Your task to perform on an android device: Show me the alarms in the clock app Image 0: 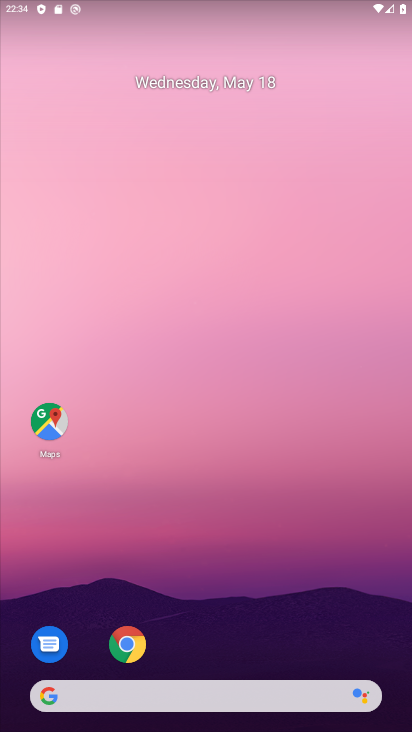
Step 0: drag from (274, 623) to (225, 139)
Your task to perform on an android device: Show me the alarms in the clock app Image 1: 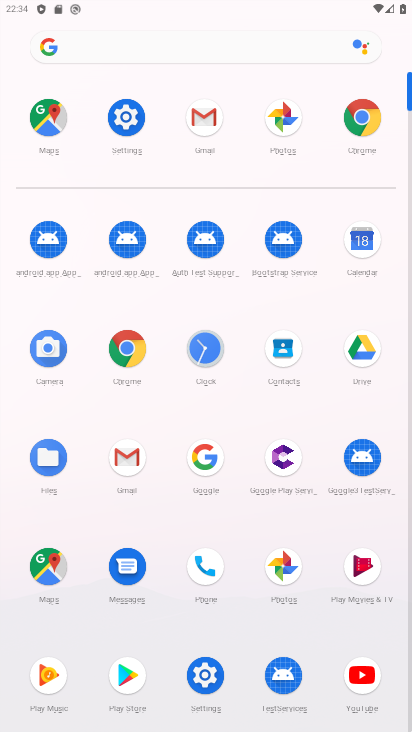
Step 1: click (207, 352)
Your task to perform on an android device: Show me the alarms in the clock app Image 2: 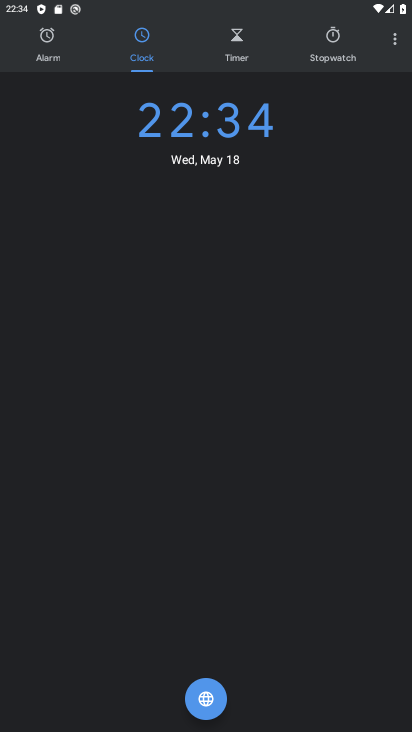
Step 2: click (43, 47)
Your task to perform on an android device: Show me the alarms in the clock app Image 3: 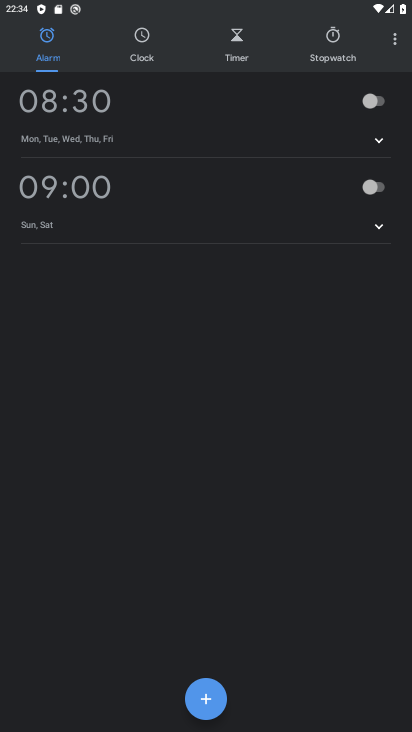
Step 3: task complete